Your task to perform on an android device: Clear all items from cart on amazon.com. Image 0: 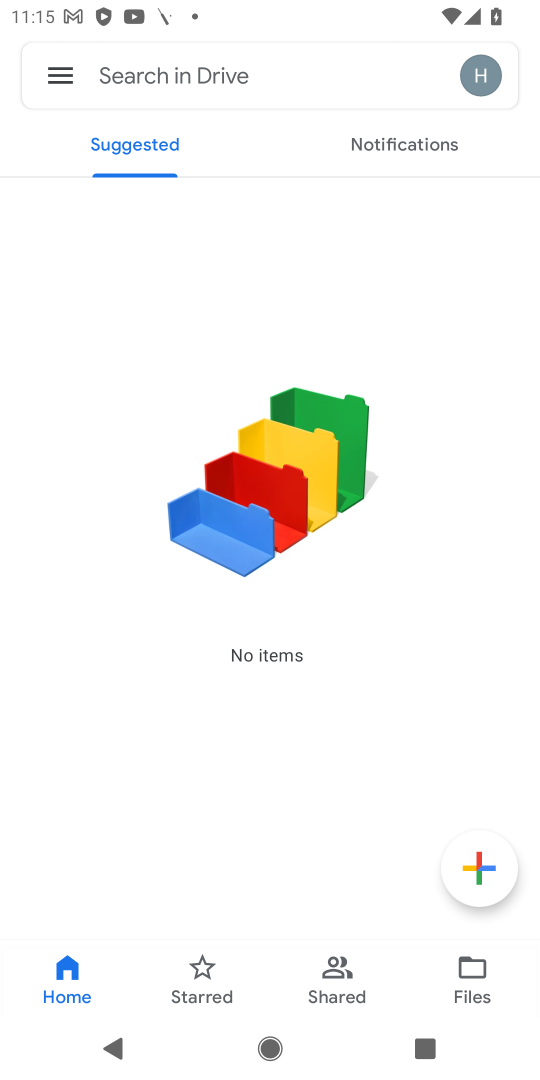
Step 0: press home button
Your task to perform on an android device: Clear all items from cart on amazon.com. Image 1: 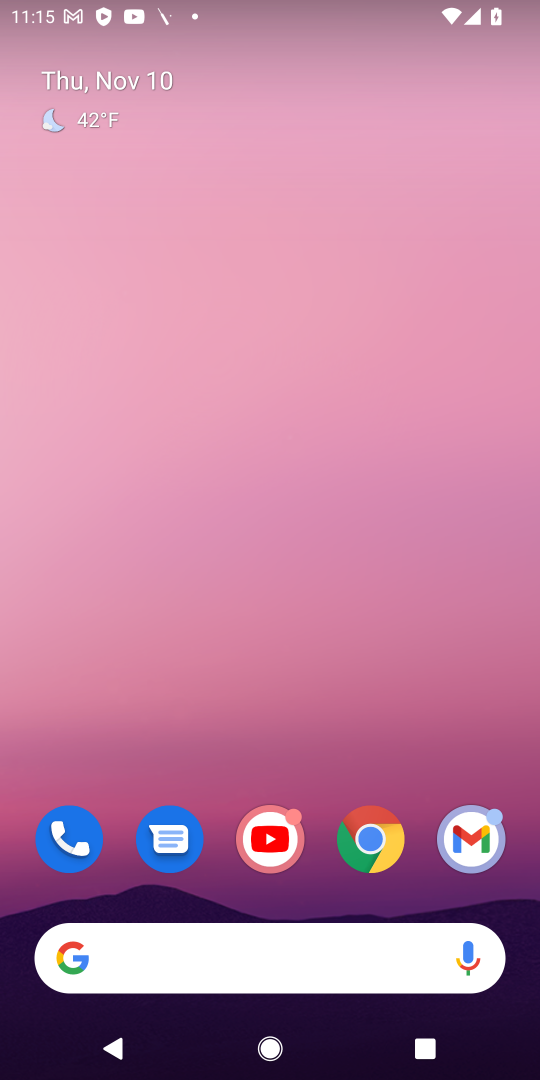
Step 1: click (358, 832)
Your task to perform on an android device: Clear all items from cart on amazon.com. Image 2: 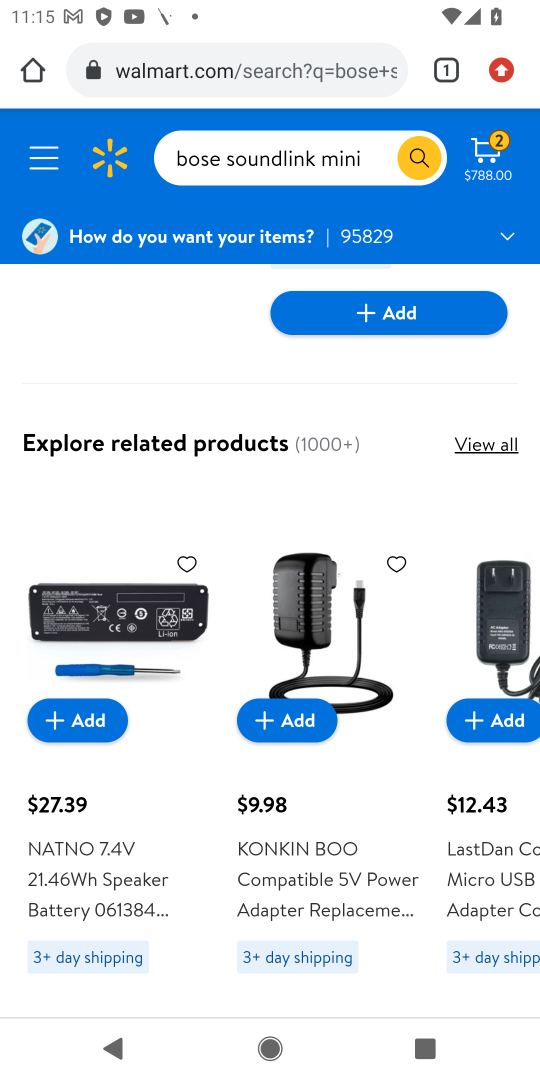
Step 2: click (345, 53)
Your task to perform on an android device: Clear all items from cart on amazon.com. Image 3: 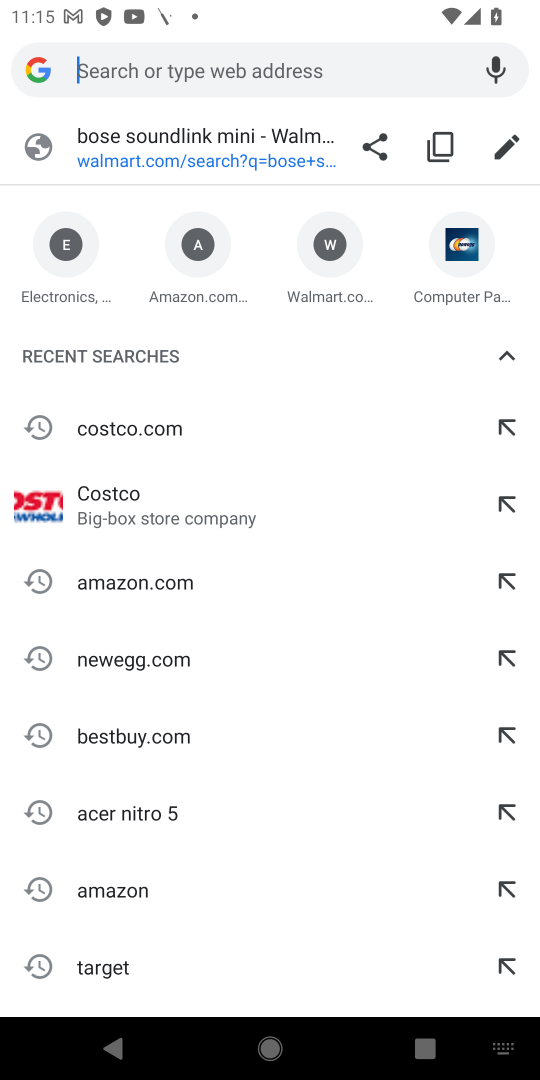
Step 3: click (141, 583)
Your task to perform on an android device: Clear all items from cart on amazon.com. Image 4: 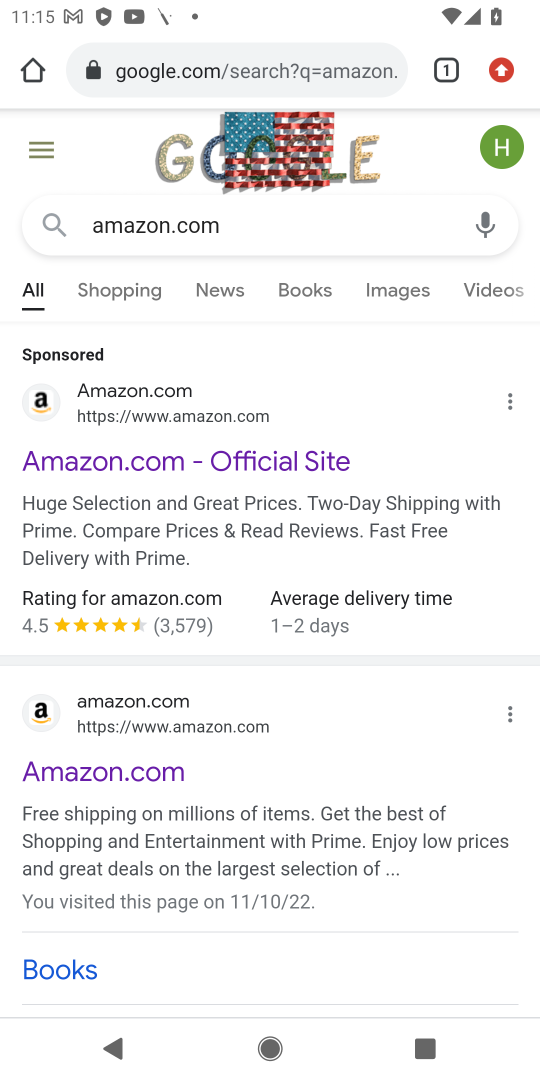
Step 4: click (193, 417)
Your task to perform on an android device: Clear all items from cart on amazon.com. Image 5: 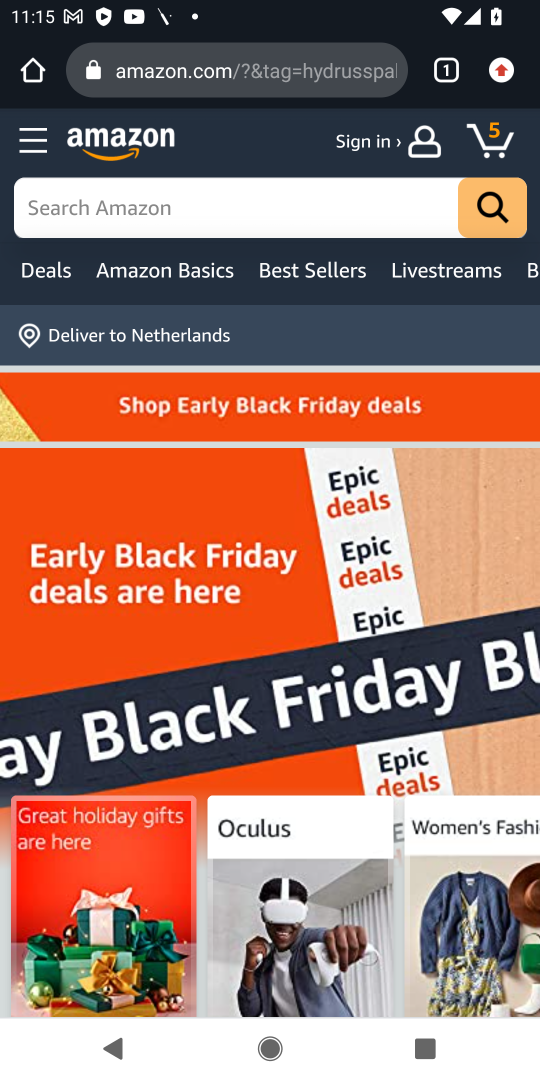
Step 5: click (497, 141)
Your task to perform on an android device: Clear all items from cart on amazon.com. Image 6: 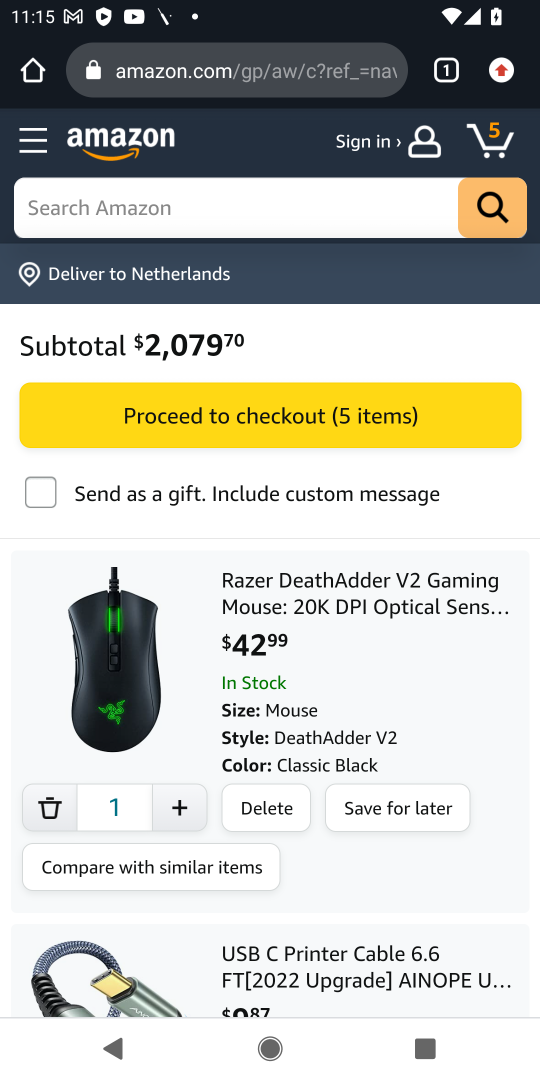
Step 6: click (267, 809)
Your task to perform on an android device: Clear all items from cart on amazon.com. Image 7: 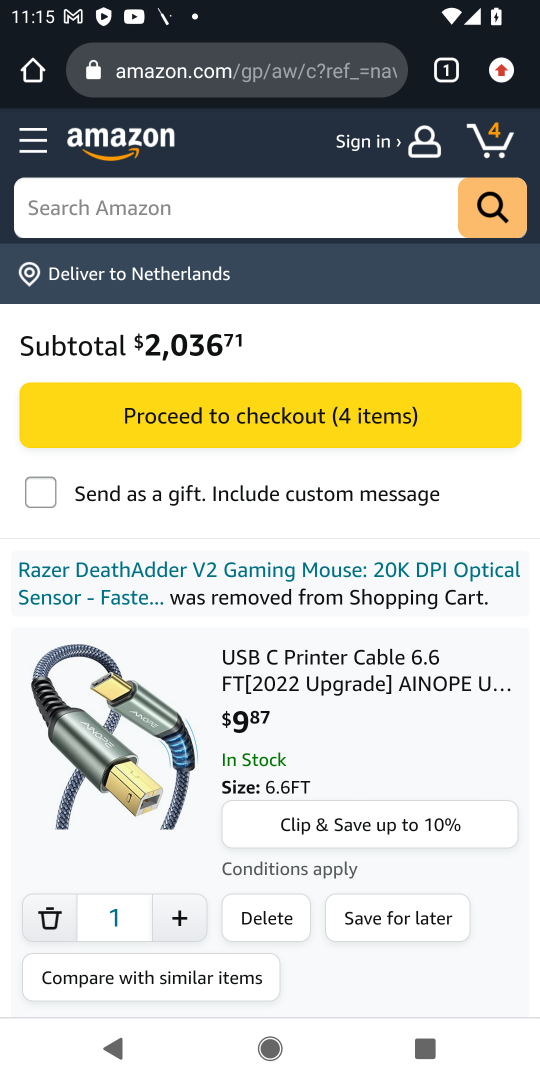
Step 7: click (285, 919)
Your task to perform on an android device: Clear all items from cart on amazon.com. Image 8: 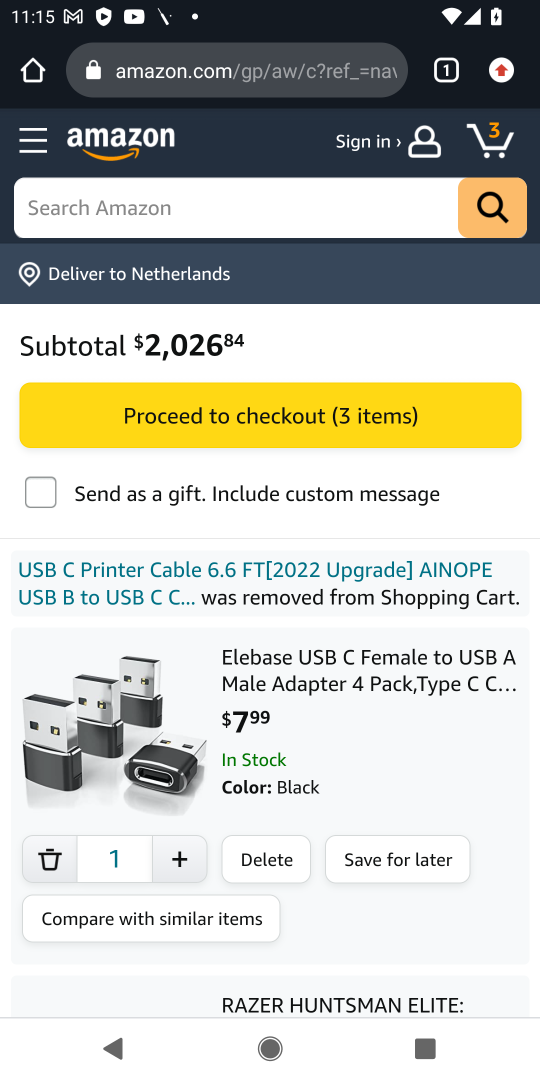
Step 8: click (254, 862)
Your task to perform on an android device: Clear all items from cart on amazon.com. Image 9: 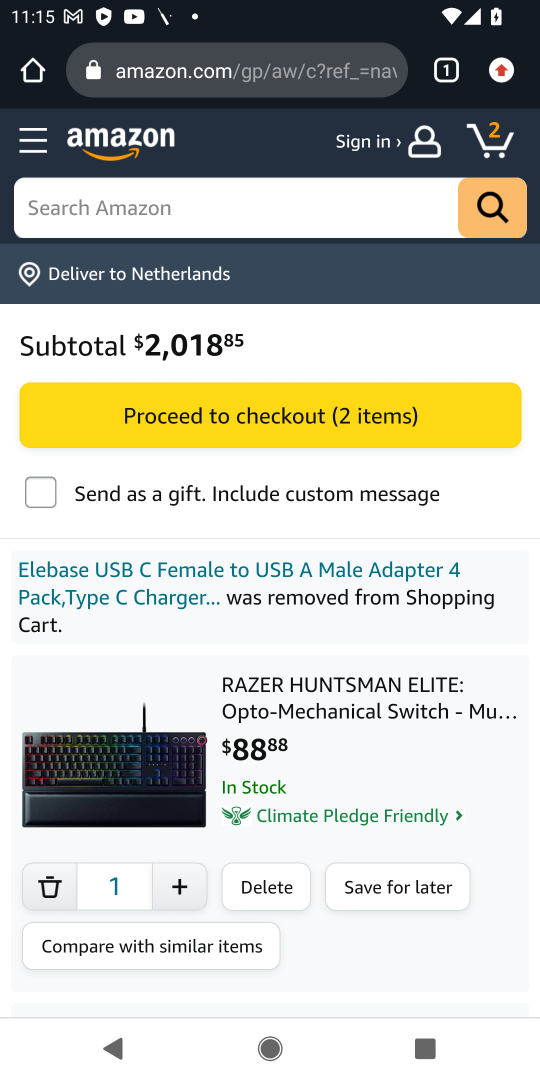
Step 9: click (254, 862)
Your task to perform on an android device: Clear all items from cart on amazon.com. Image 10: 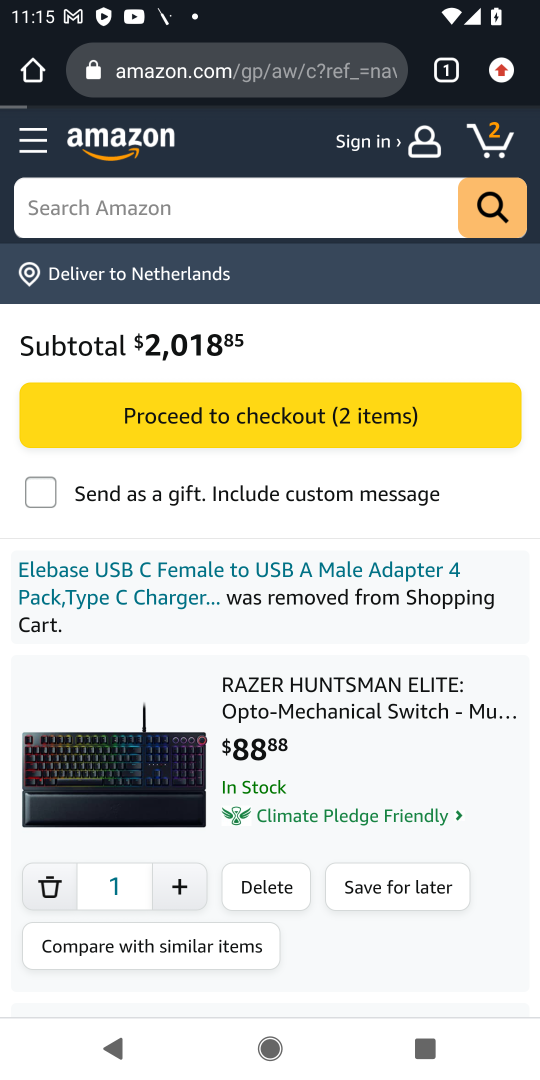
Step 10: click (256, 876)
Your task to perform on an android device: Clear all items from cart on amazon.com. Image 11: 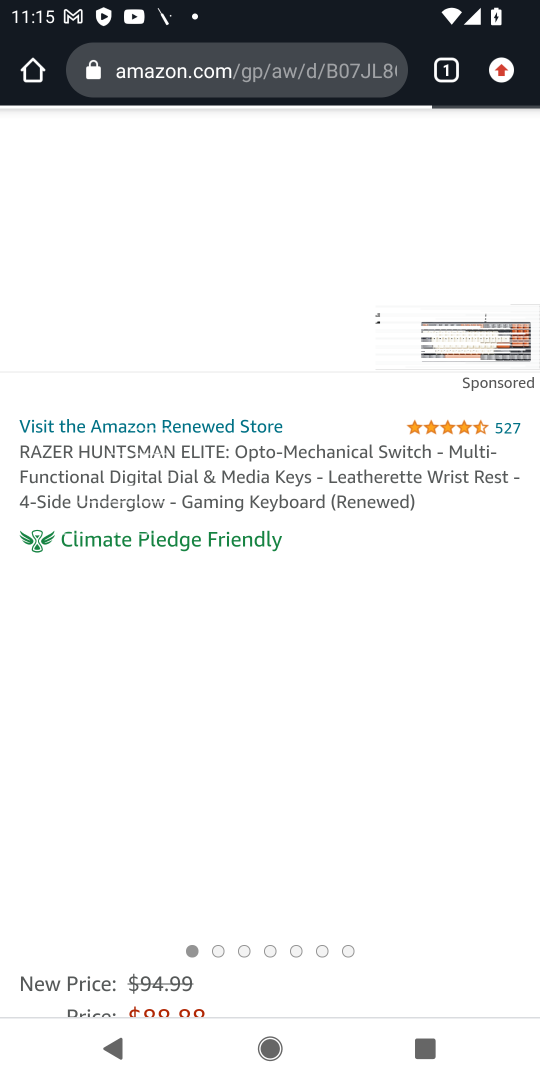
Step 11: click (495, 140)
Your task to perform on an android device: Clear all items from cart on amazon.com. Image 12: 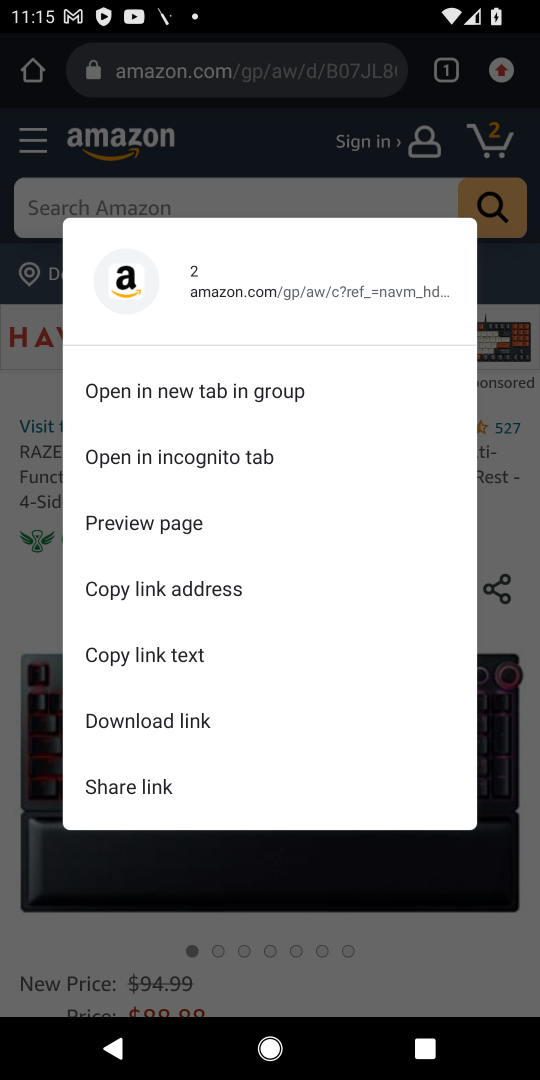
Step 12: click (495, 140)
Your task to perform on an android device: Clear all items from cart on amazon.com. Image 13: 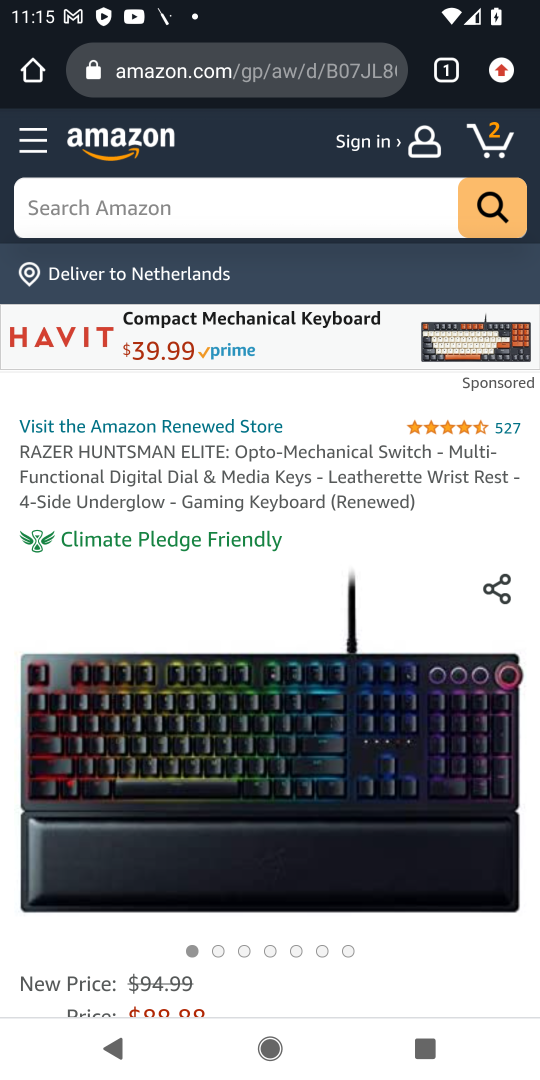
Step 13: click (492, 131)
Your task to perform on an android device: Clear all items from cart on amazon.com. Image 14: 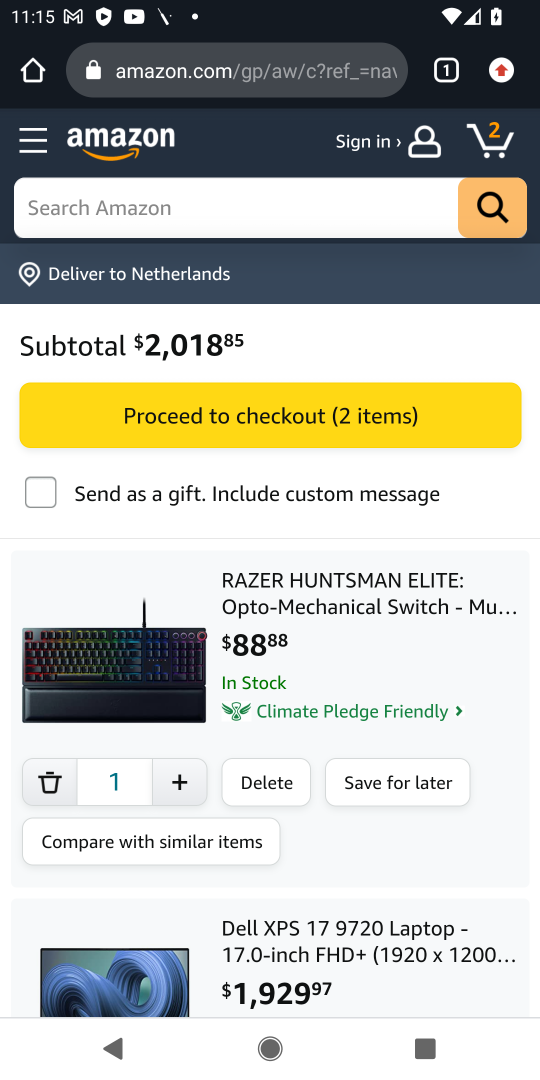
Step 14: click (270, 776)
Your task to perform on an android device: Clear all items from cart on amazon.com. Image 15: 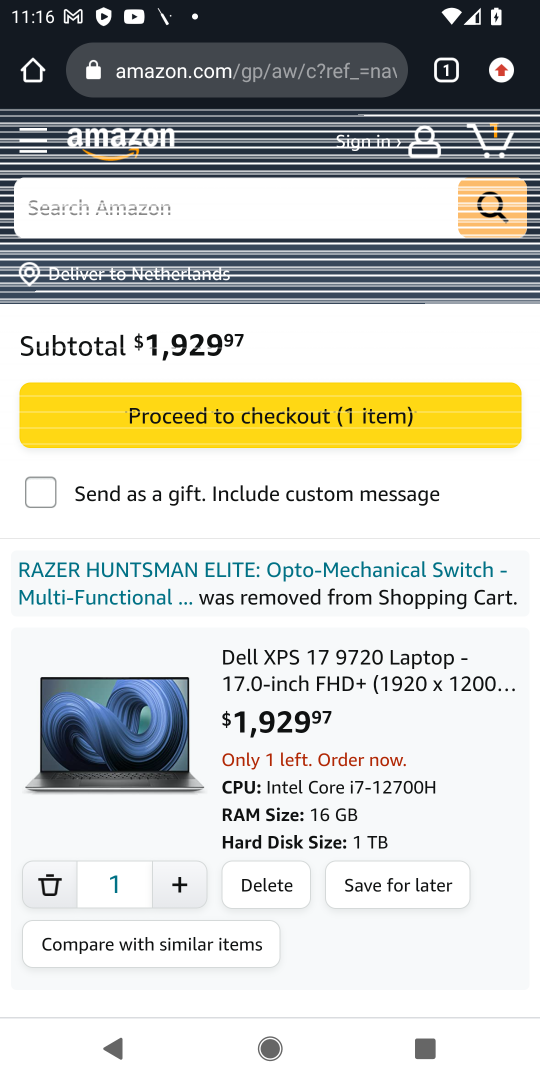
Step 15: click (267, 881)
Your task to perform on an android device: Clear all items from cart on amazon.com. Image 16: 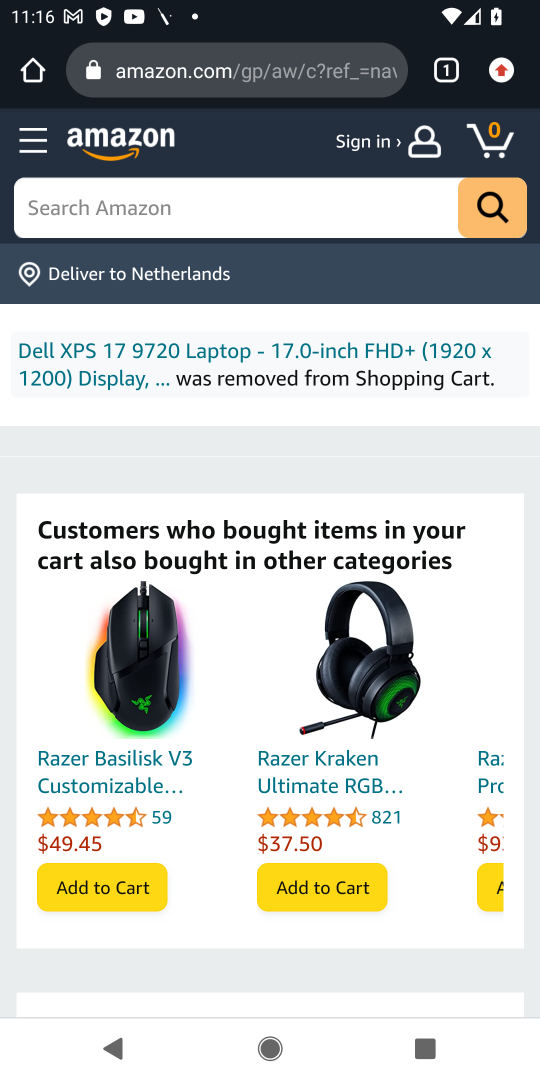
Step 16: task complete